Your task to perform on an android device: What's on my calendar tomorrow? Image 0: 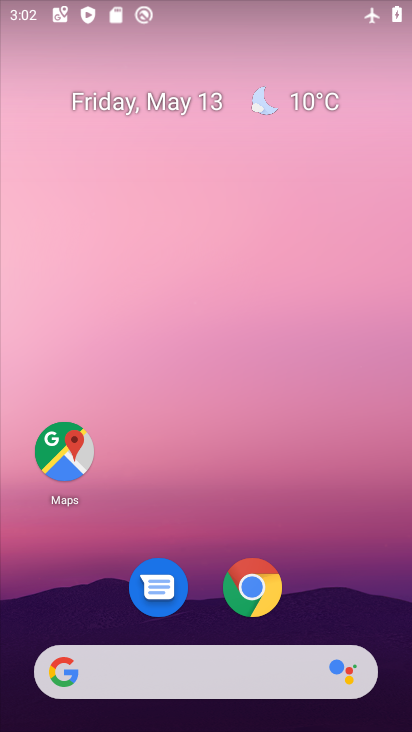
Step 0: drag from (317, 617) to (296, 80)
Your task to perform on an android device: What's on my calendar tomorrow? Image 1: 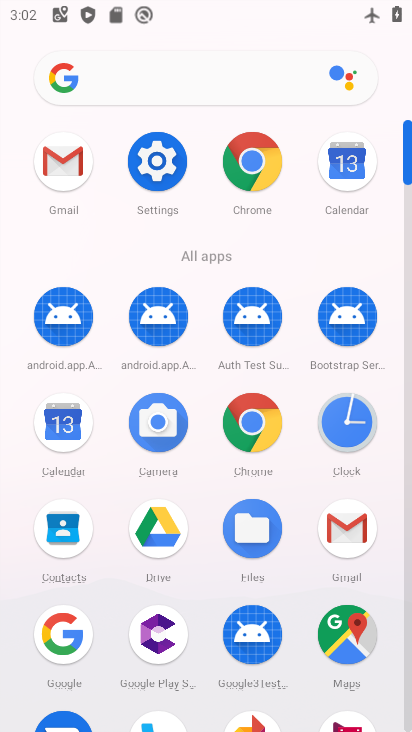
Step 1: click (66, 429)
Your task to perform on an android device: What's on my calendar tomorrow? Image 2: 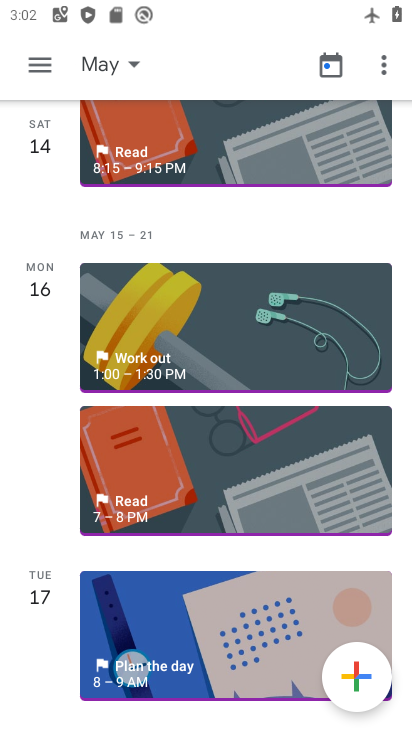
Step 2: click (99, 66)
Your task to perform on an android device: What's on my calendar tomorrow? Image 3: 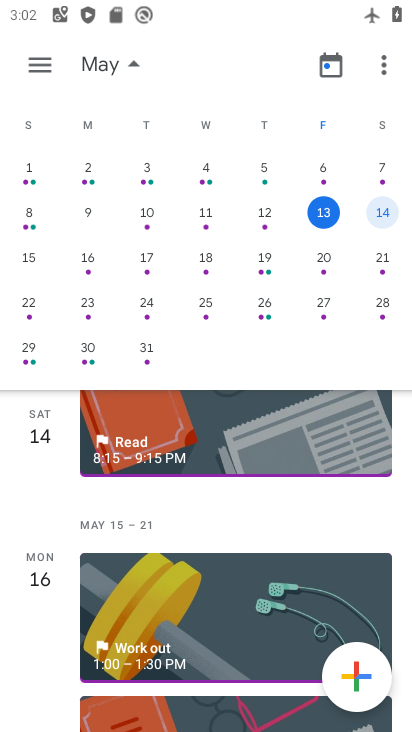
Step 3: click (383, 213)
Your task to perform on an android device: What's on my calendar tomorrow? Image 4: 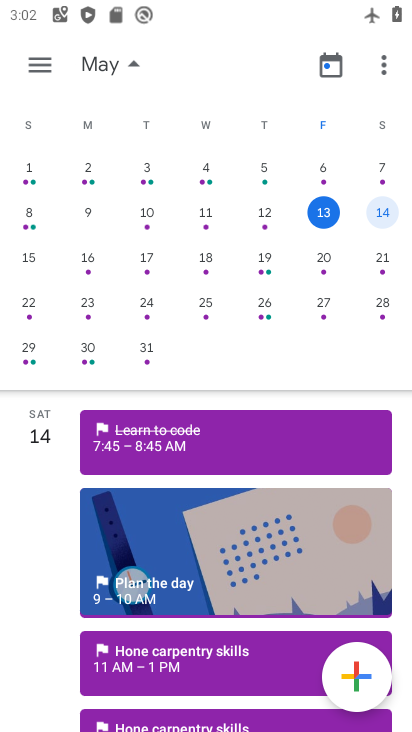
Step 4: task complete